Your task to perform on an android device: change alarm snooze length Image 0: 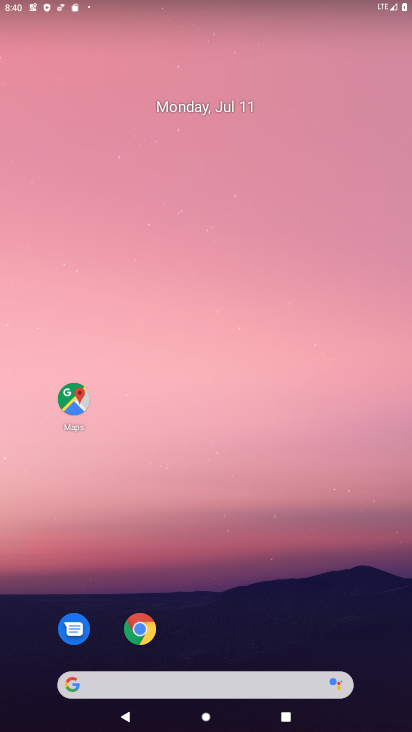
Step 0: drag from (180, 8) to (268, 610)
Your task to perform on an android device: change alarm snooze length Image 1: 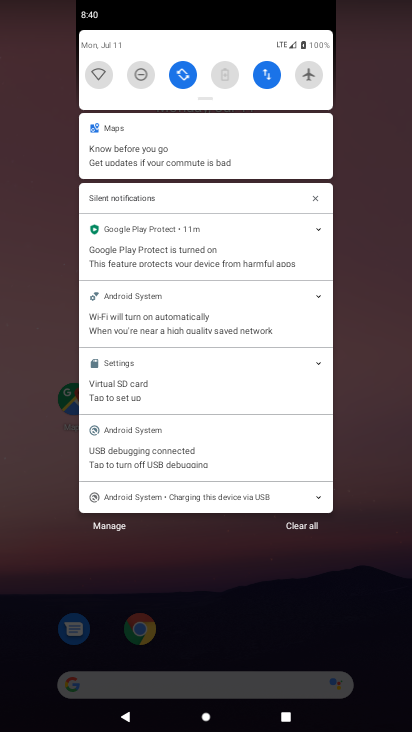
Step 1: drag from (194, 39) to (187, 529)
Your task to perform on an android device: change alarm snooze length Image 2: 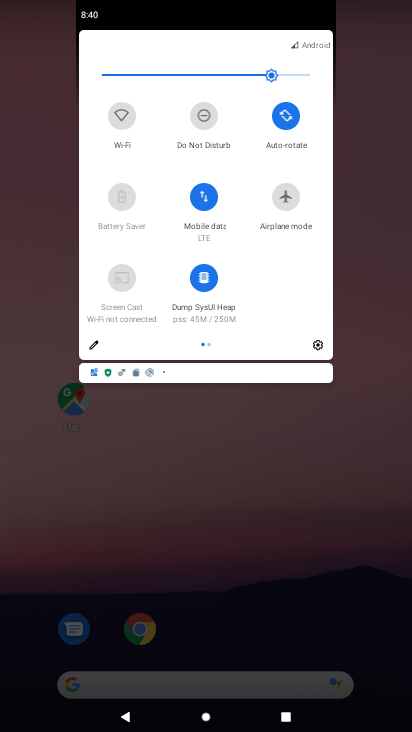
Step 2: click (274, 444)
Your task to perform on an android device: change alarm snooze length Image 3: 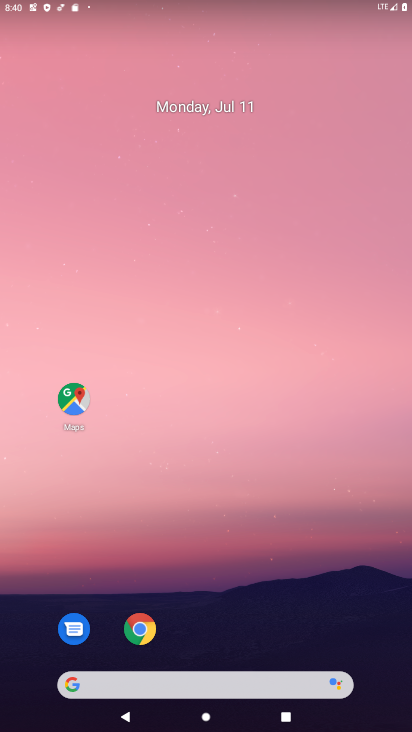
Step 3: drag from (203, 668) to (276, 64)
Your task to perform on an android device: change alarm snooze length Image 4: 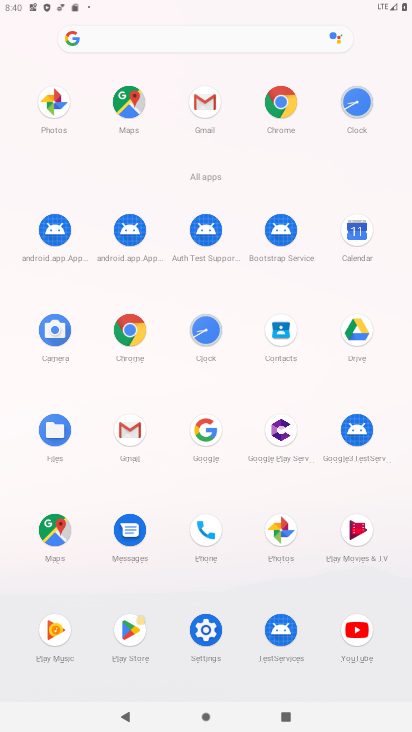
Step 4: click (197, 323)
Your task to perform on an android device: change alarm snooze length Image 5: 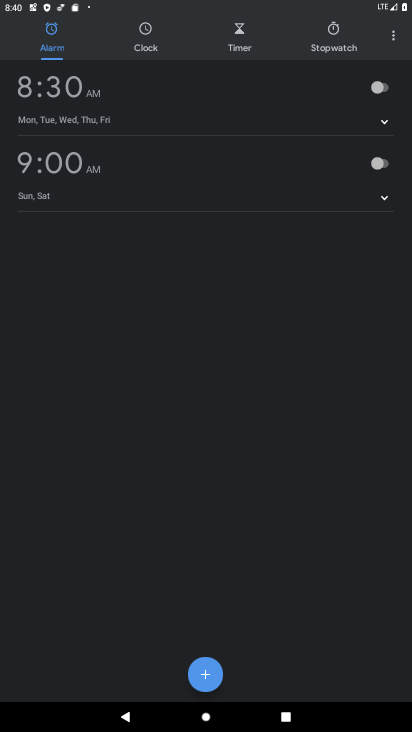
Step 5: click (395, 31)
Your task to perform on an android device: change alarm snooze length Image 6: 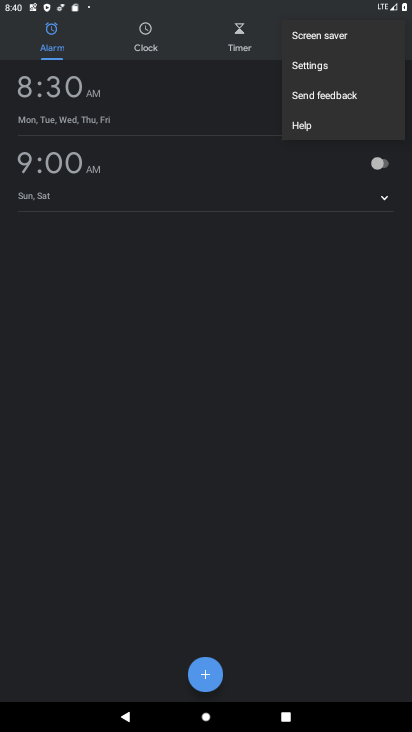
Step 6: click (324, 55)
Your task to perform on an android device: change alarm snooze length Image 7: 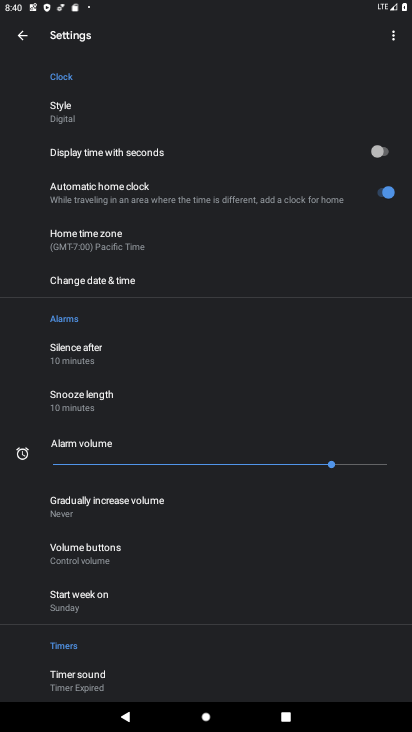
Step 7: click (66, 401)
Your task to perform on an android device: change alarm snooze length Image 8: 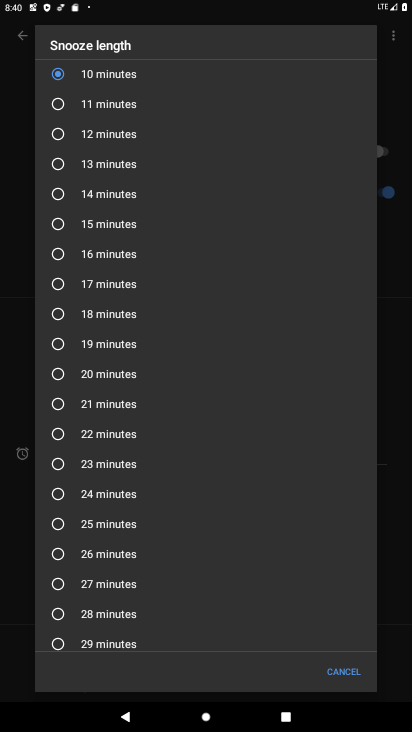
Step 8: click (61, 434)
Your task to perform on an android device: change alarm snooze length Image 9: 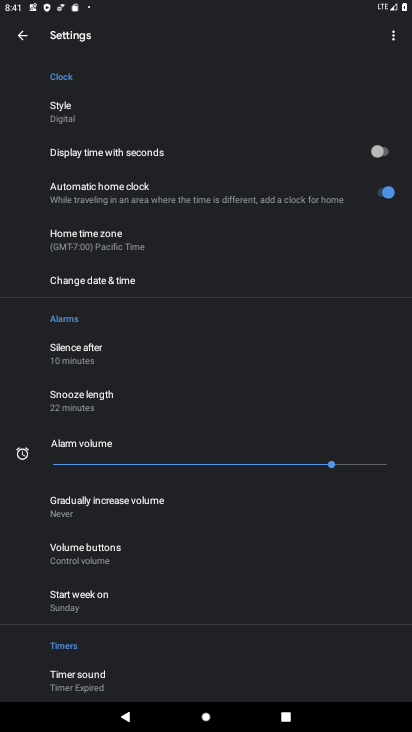
Step 9: task complete